Your task to perform on an android device: Open the phone app and click the voicemail tab. Image 0: 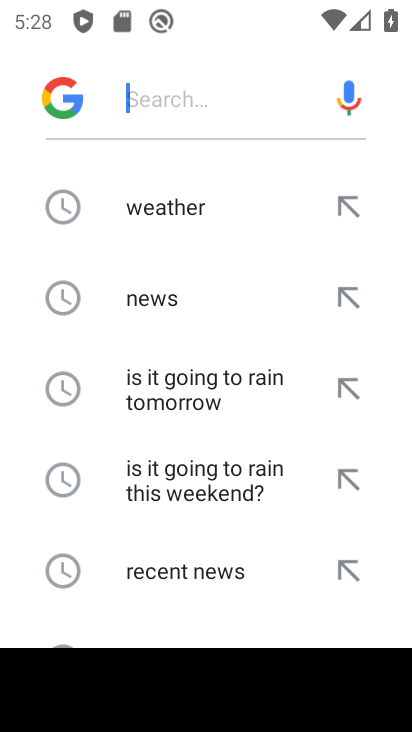
Step 0: press home button
Your task to perform on an android device: Open the phone app and click the voicemail tab. Image 1: 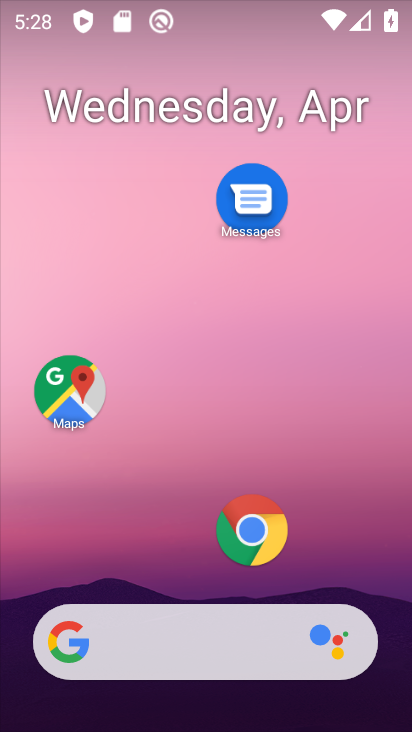
Step 1: drag from (153, 572) to (209, 62)
Your task to perform on an android device: Open the phone app and click the voicemail tab. Image 2: 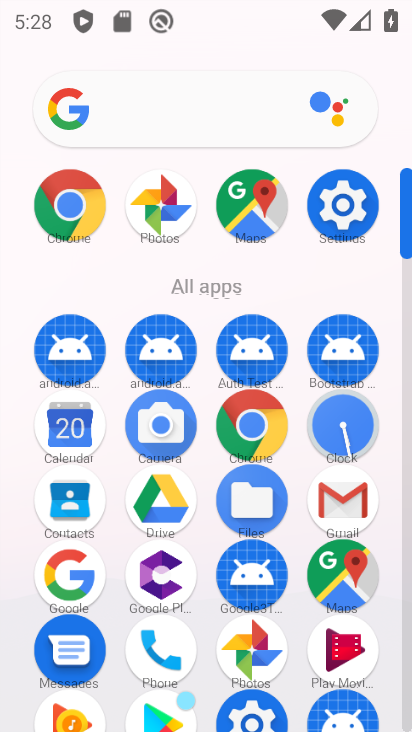
Step 2: drag from (118, 427) to (139, 160)
Your task to perform on an android device: Open the phone app and click the voicemail tab. Image 3: 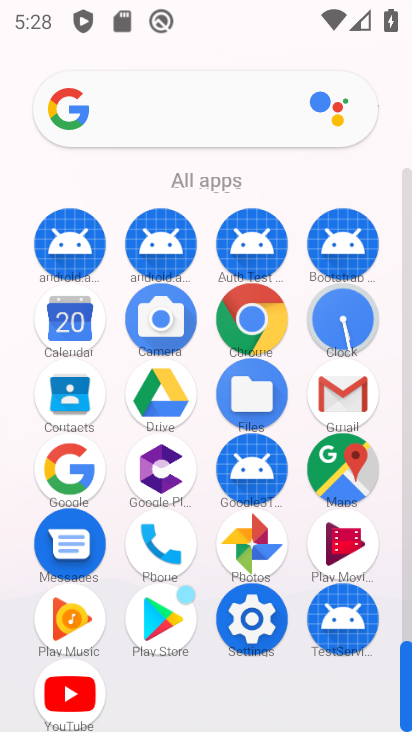
Step 3: click (155, 549)
Your task to perform on an android device: Open the phone app and click the voicemail tab. Image 4: 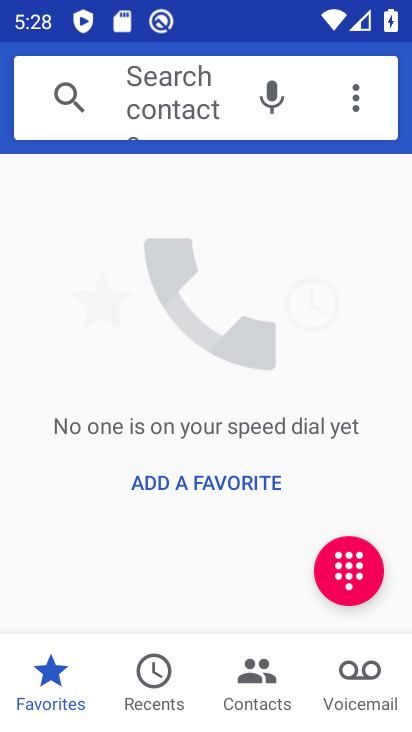
Step 4: click (368, 676)
Your task to perform on an android device: Open the phone app and click the voicemail tab. Image 5: 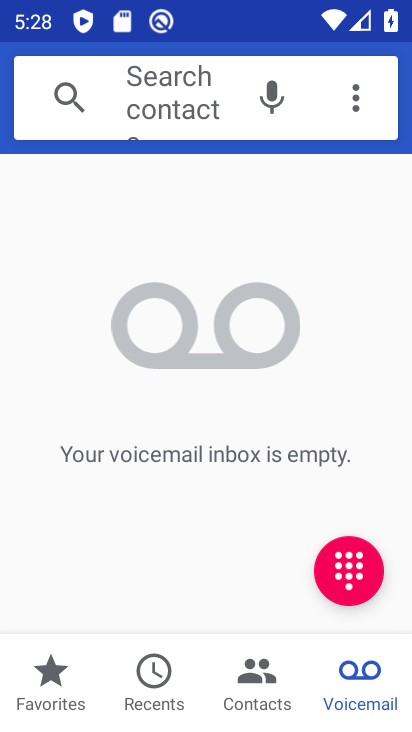
Step 5: task complete